Your task to perform on an android device: Look up the best rated pressure washer on Home Depot. Image 0: 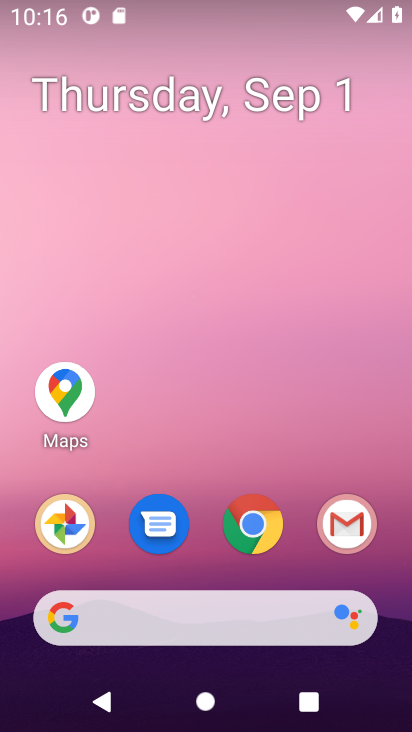
Step 0: press home button
Your task to perform on an android device: Look up the best rated pressure washer on Home Depot. Image 1: 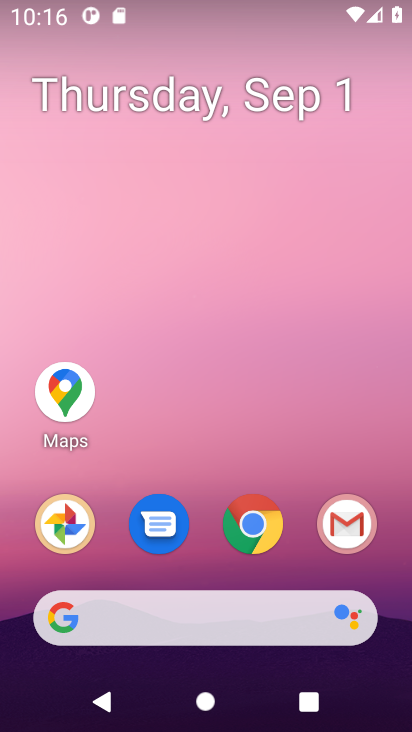
Step 1: drag from (376, 413) to (364, 88)
Your task to perform on an android device: Look up the best rated pressure washer on Home Depot. Image 2: 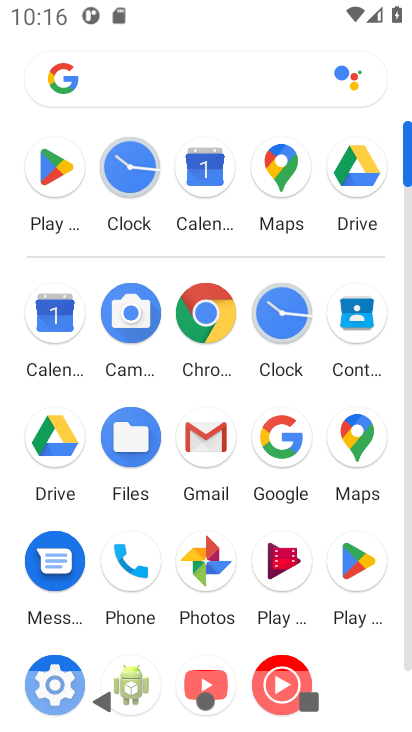
Step 2: click (212, 309)
Your task to perform on an android device: Look up the best rated pressure washer on Home Depot. Image 3: 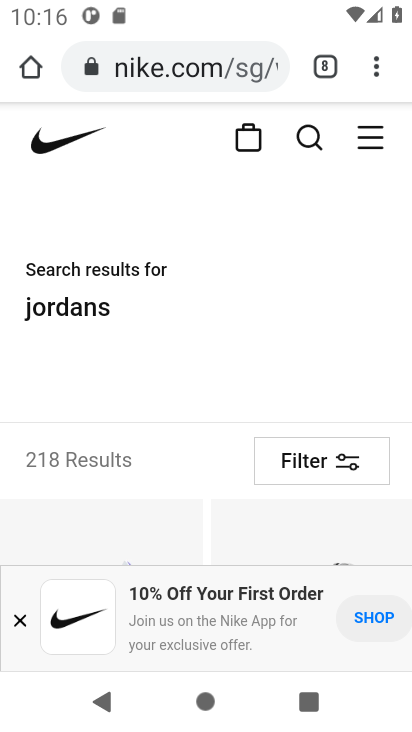
Step 3: click (228, 63)
Your task to perform on an android device: Look up the best rated pressure washer on Home Depot. Image 4: 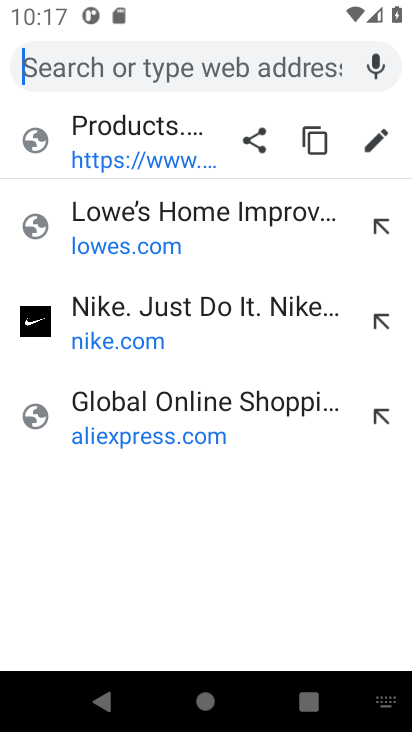
Step 4: press enter
Your task to perform on an android device: Look up the best rated pressure washer on Home Depot. Image 5: 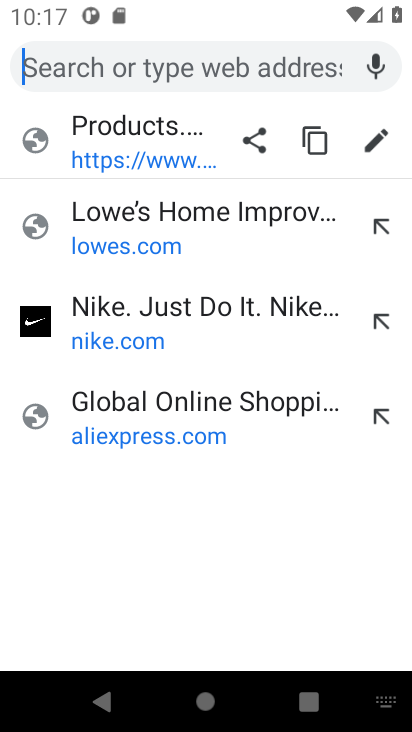
Step 5: type "home depot"
Your task to perform on an android device: Look up the best rated pressure washer on Home Depot. Image 6: 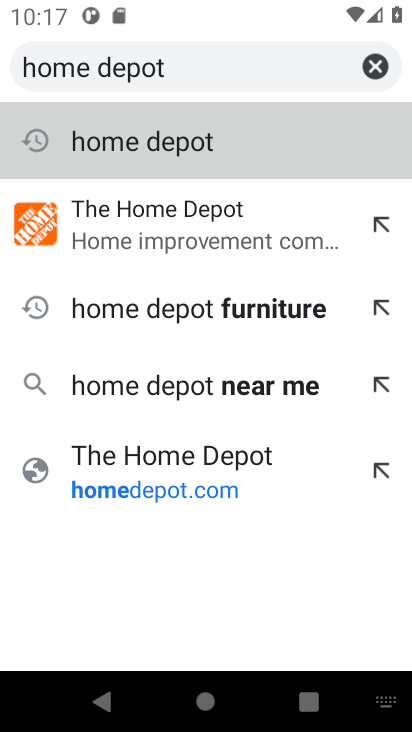
Step 6: click (203, 129)
Your task to perform on an android device: Look up the best rated pressure washer on Home Depot. Image 7: 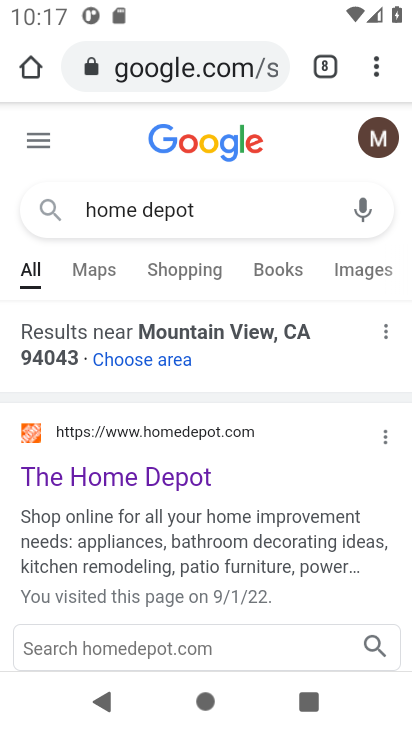
Step 7: click (165, 472)
Your task to perform on an android device: Look up the best rated pressure washer on Home Depot. Image 8: 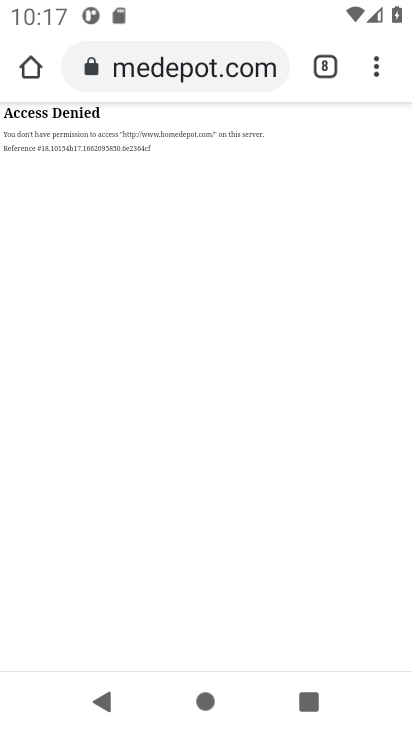
Step 8: task complete